Your task to perform on an android device: Open the Play Movies app and select the watchlist tab. Image 0: 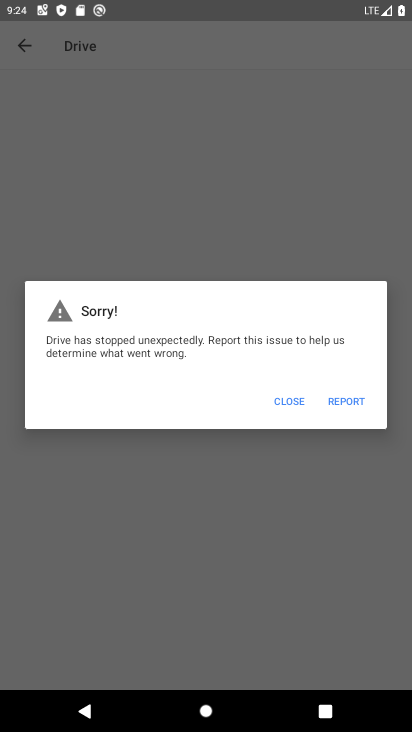
Step 0: press home button
Your task to perform on an android device: Open the Play Movies app and select the watchlist tab. Image 1: 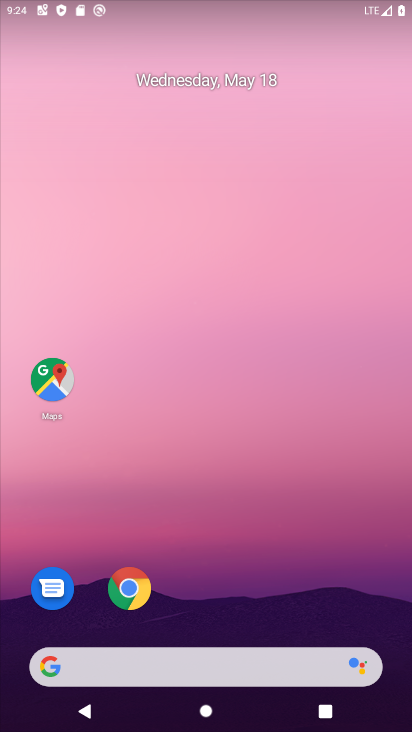
Step 1: drag from (338, 618) to (331, 11)
Your task to perform on an android device: Open the Play Movies app and select the watchlist tab. Image 2: 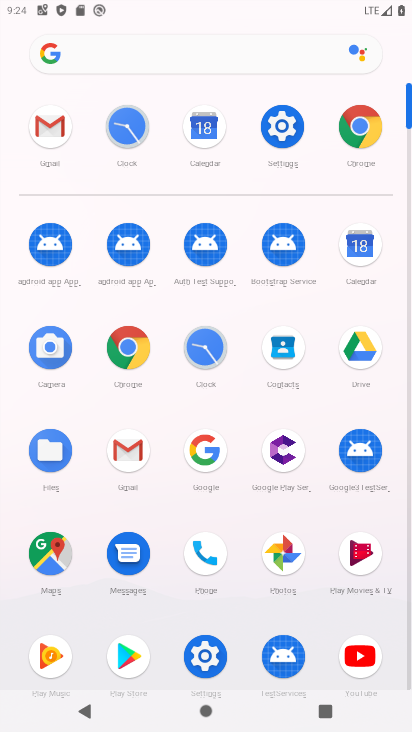
Step 2: click (365, 556)
Your task to perform on an android device: Open the Play Movies app and select the watchlist tab. Image 3: 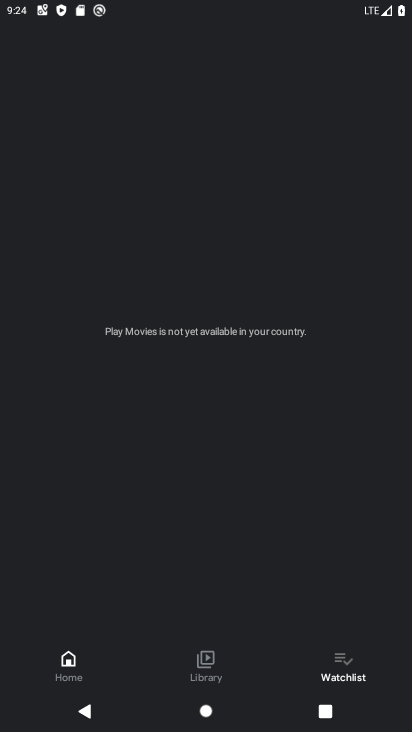
Step 3: click (343, 663)
Your task to perform on an android device: Open the Play Movies app and select the watchlist tab. Image 4: 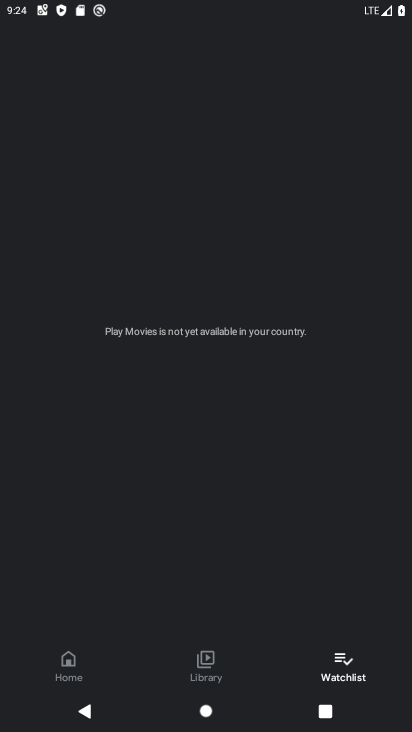
Step 4: task complete